Your task to perform on an android device: install app "YouTube Kids" Image 0: 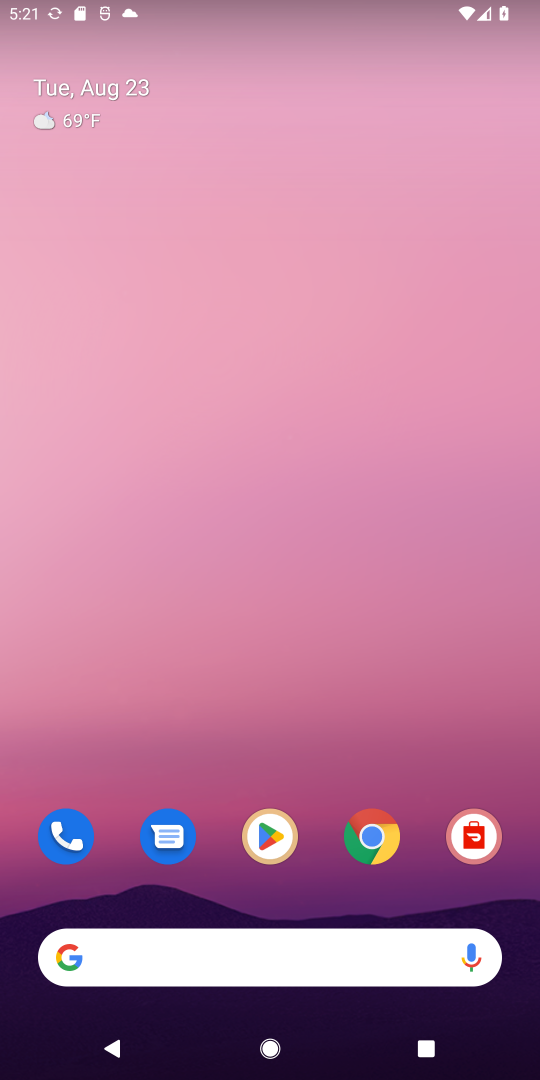
Step 0: click (272, 827)
Your task to perform on an android device: install app "YouTube Kids" Image 1: 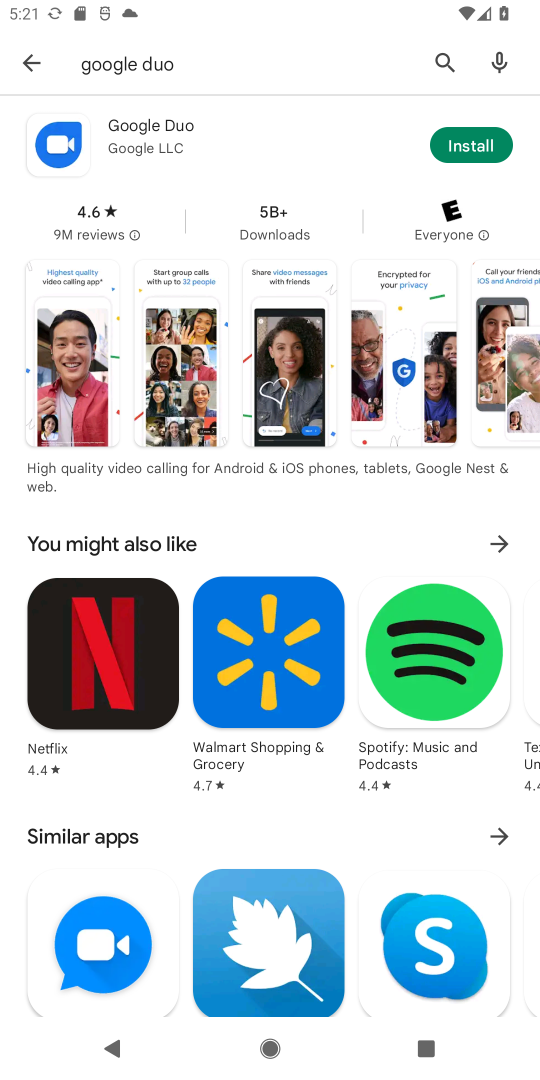
Step 1: click (443, 60)
Your task to perform on an android device: install app "YouTube Kids" Image 2: 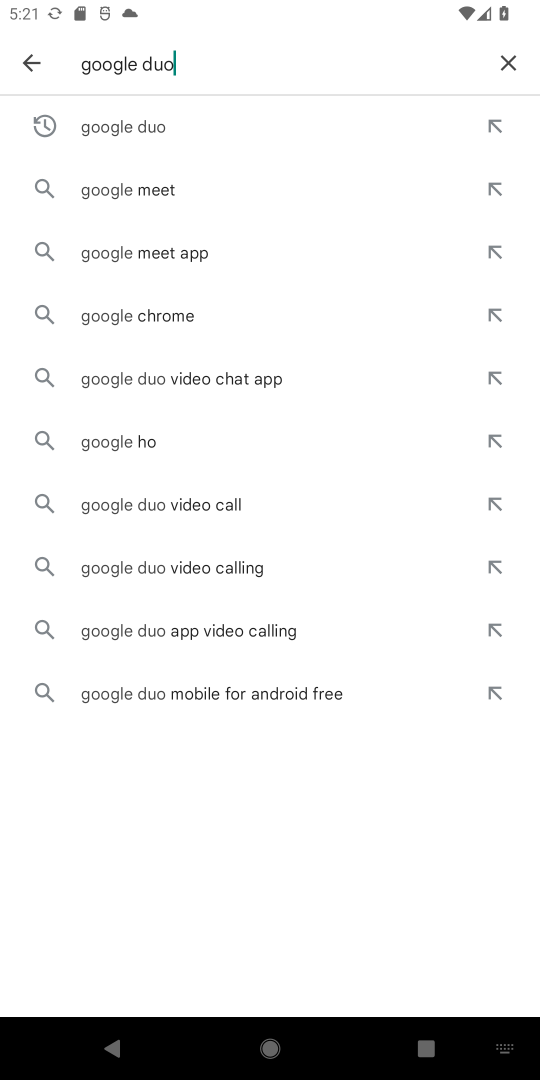
Step 2: click (505, 55)
Your task to perform on an android device: install app "YouTube Kids" Image 3: 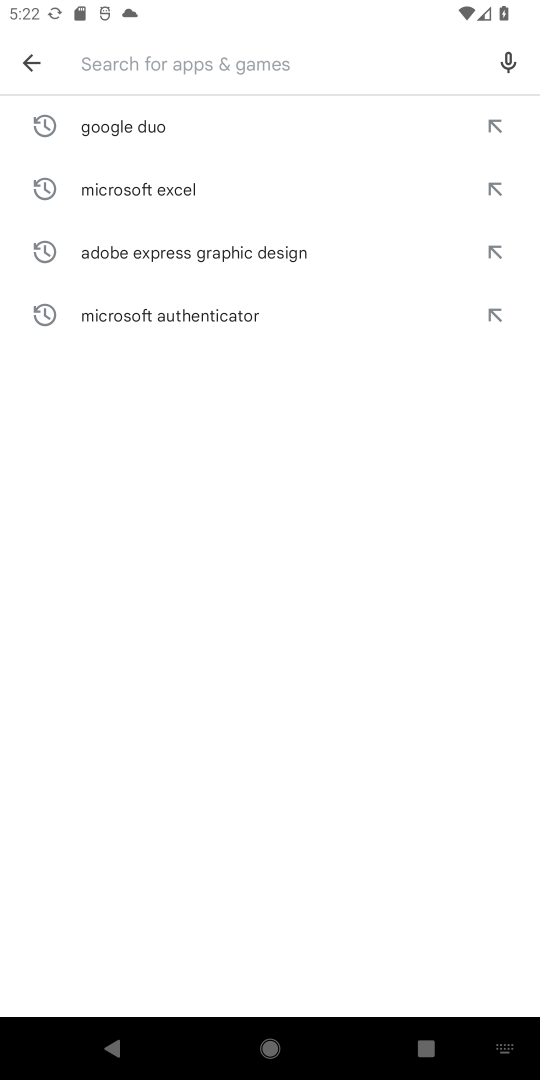
Step 3: type "YouTube Kids"
Your task to perform on an android device: install app "YouTube Kids" Image 4: 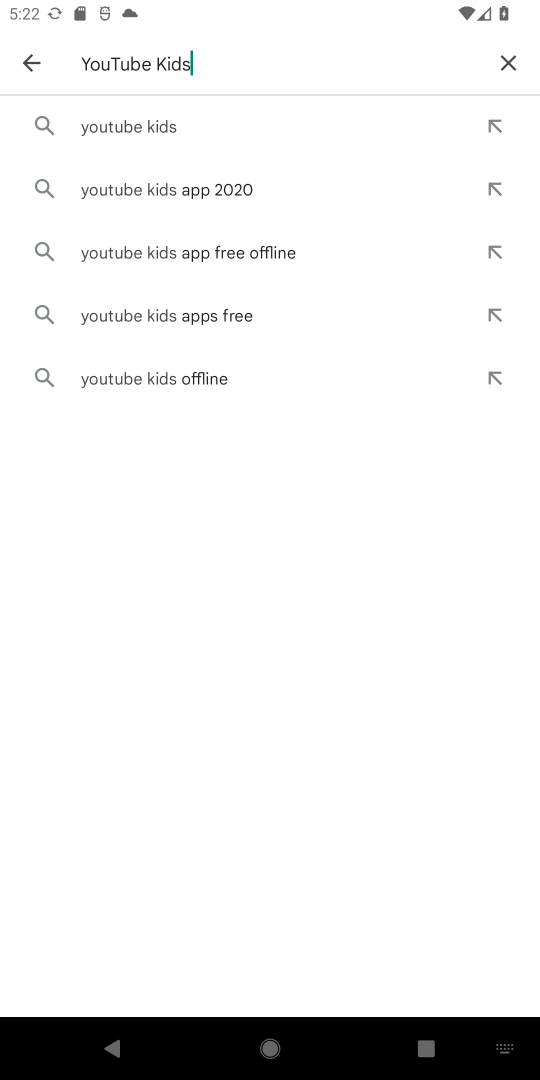
Step 4: click (125, 119)
Your task to perform on an android device: install app "YouTube Kids" Image 5: 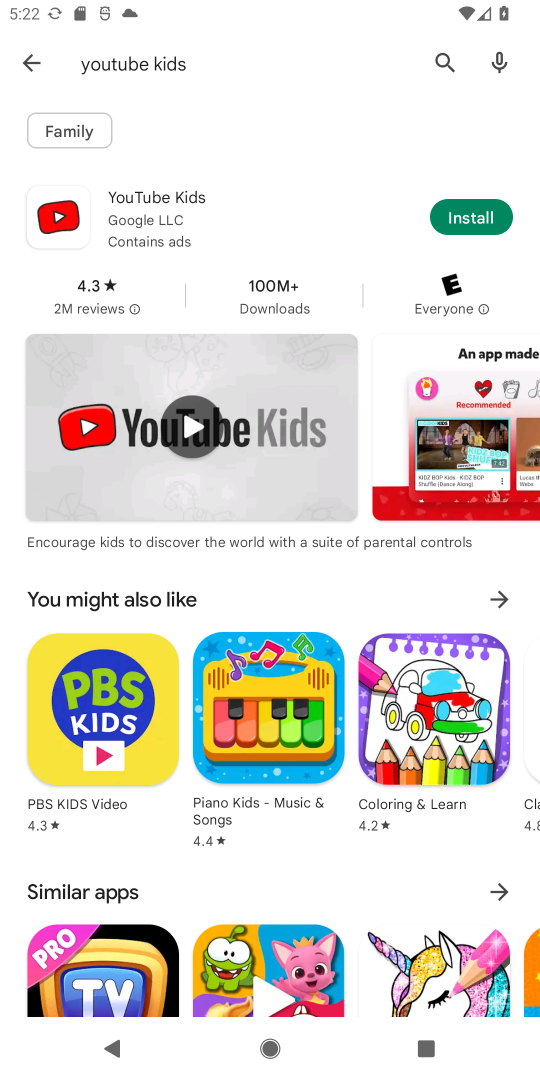
Step 5: click (468, 206)
Your task to perform on an android device: install app "YouTube Kids" Image 6: 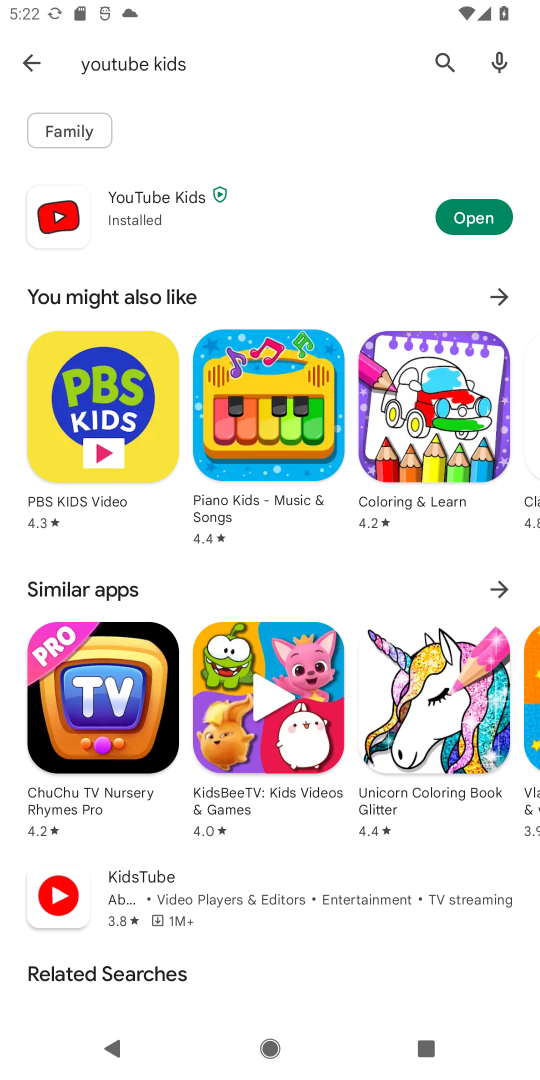
Step 6: task complete